Your task to perform on an android device: turn off smart reply in the gmail app Image 0: 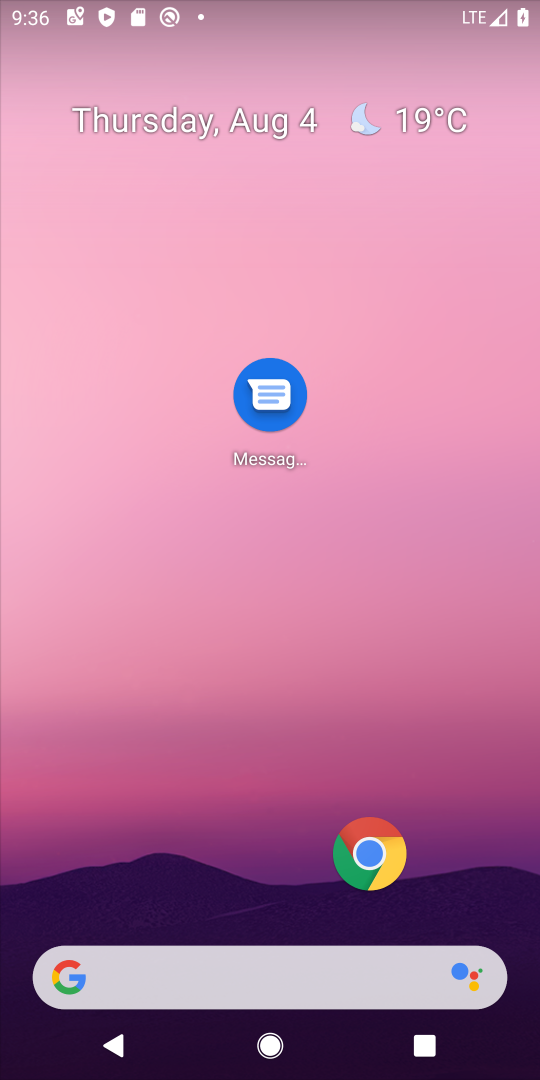
Step 0: drag from (261, 943) to (206, 351)
Your task to perform on an android device: turn off smart reply in the gmail app Image 1: 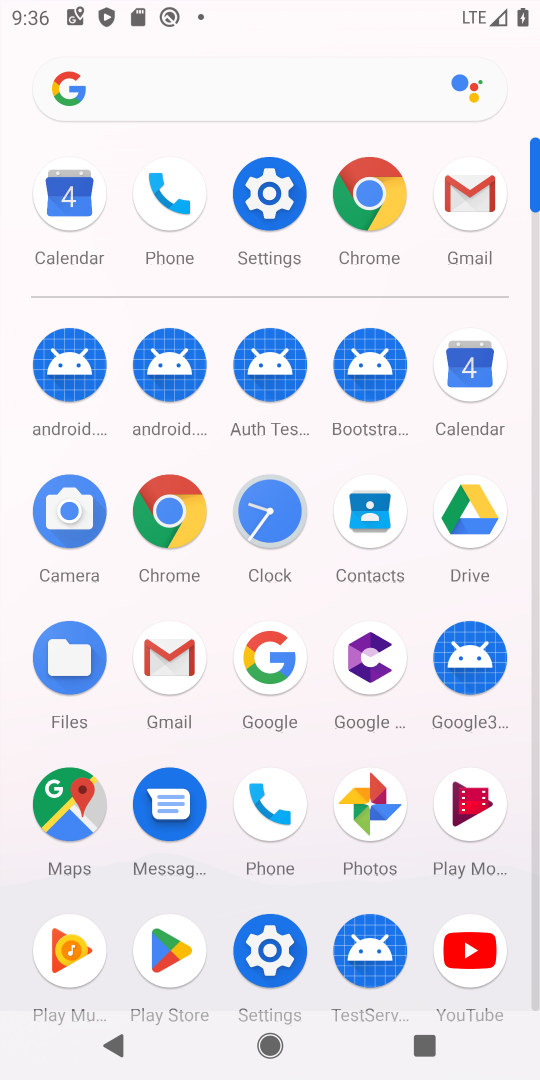
Step 1: click (165, 671)
Your task to perform on an android device: turn off smart reply in the gmail app Image 2: 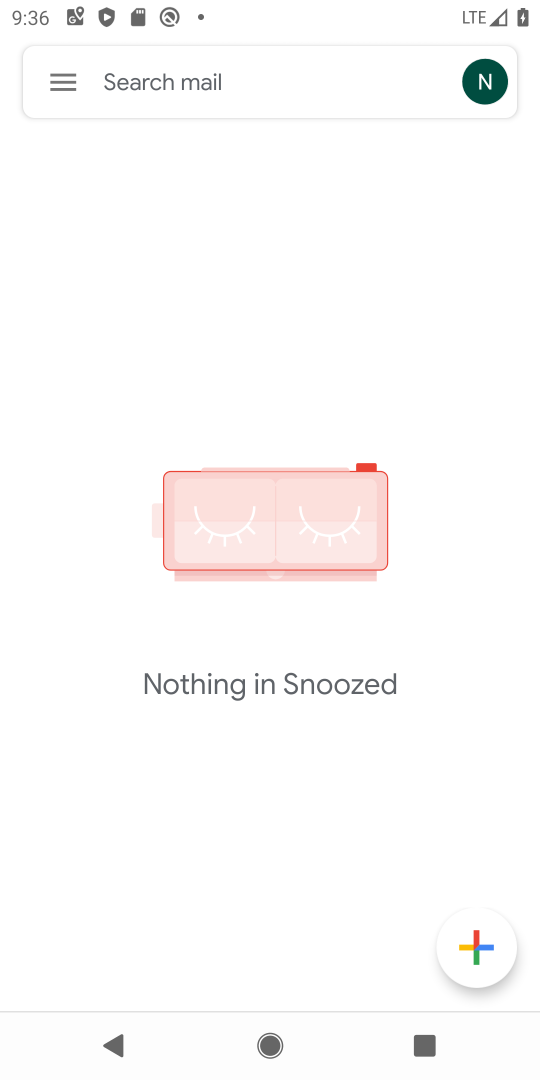
Step 2: click (63, 78)
Your task to perform on an android device: turn off smart reply in the gmail app Image 3: 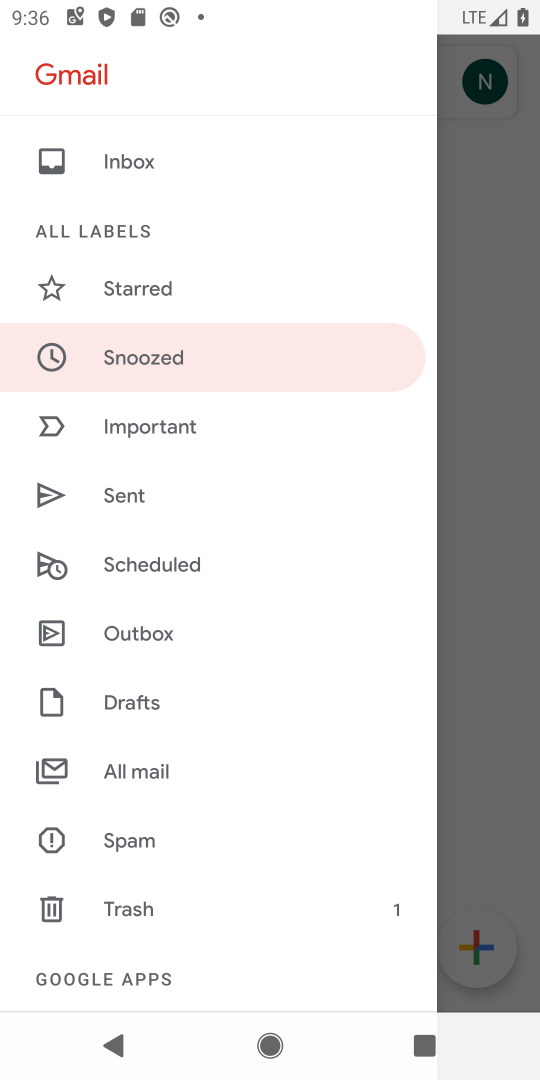
Step 3: drag from (138, 912) to (150, 456)
Your task to perform on an android device: turn off smart reply in the gmail app Image 4: 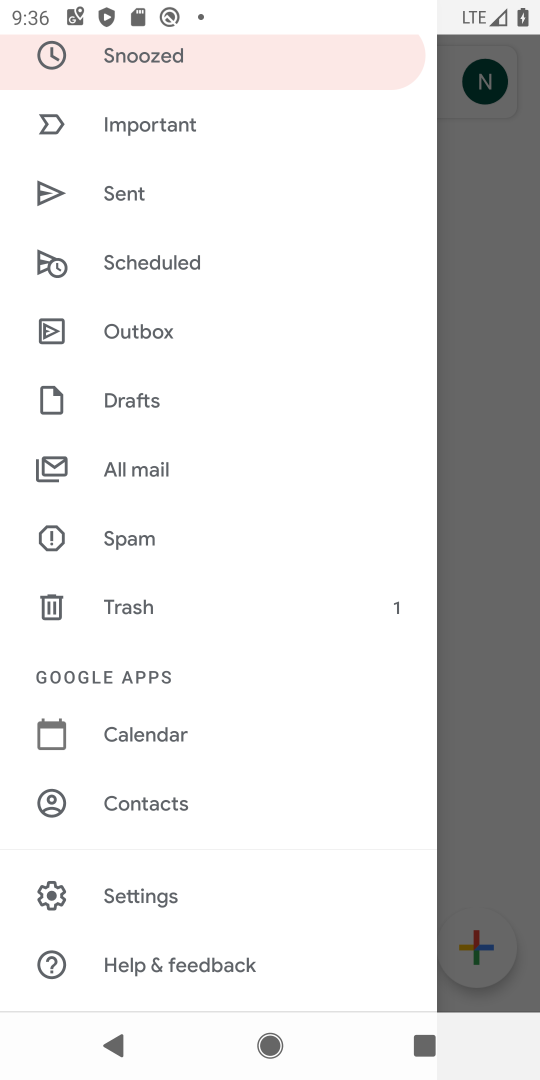
Step 4: click (164, 891)
Your task to perform on an android device: turn off smart reply in the gmail app Image 5: 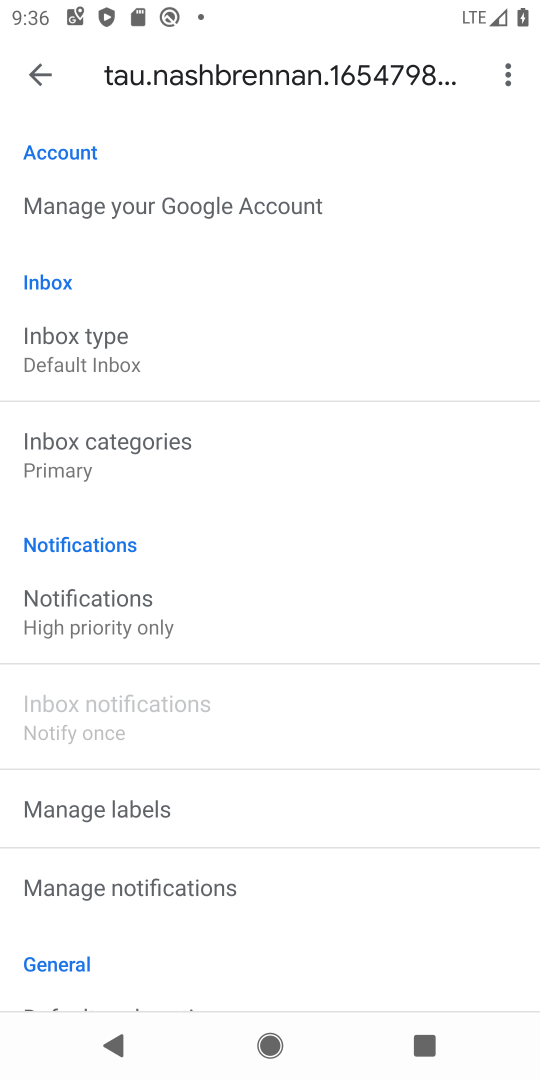
Step 5: drag from (135, 936) to (137, 346)
Your task to perform on an android device: turn off smart reply in the gmail app Image 6: 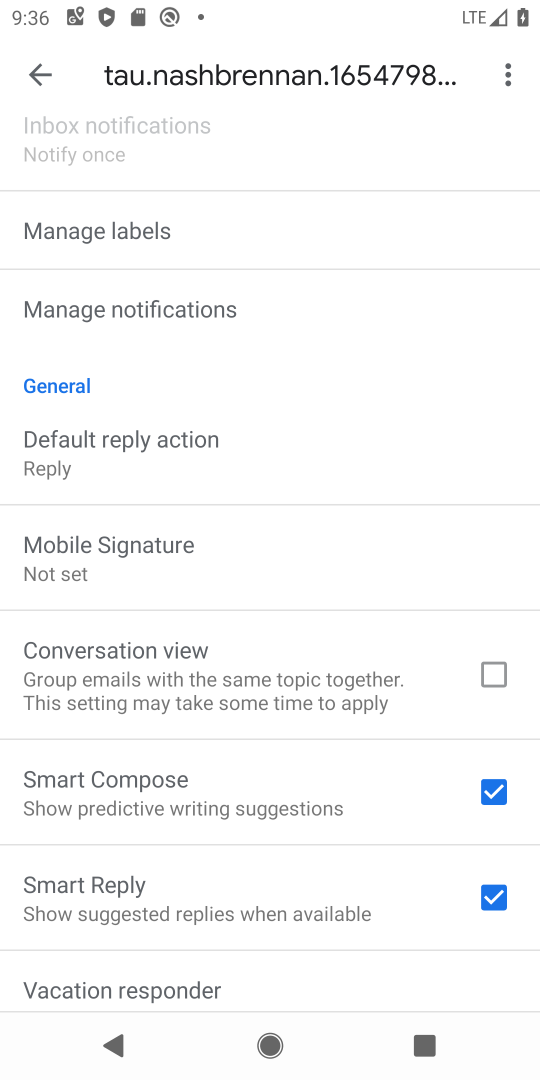
Step 6: click (507, 885)
Your task to perform on an android device: turn off smart reply in the gmail app Image 7: 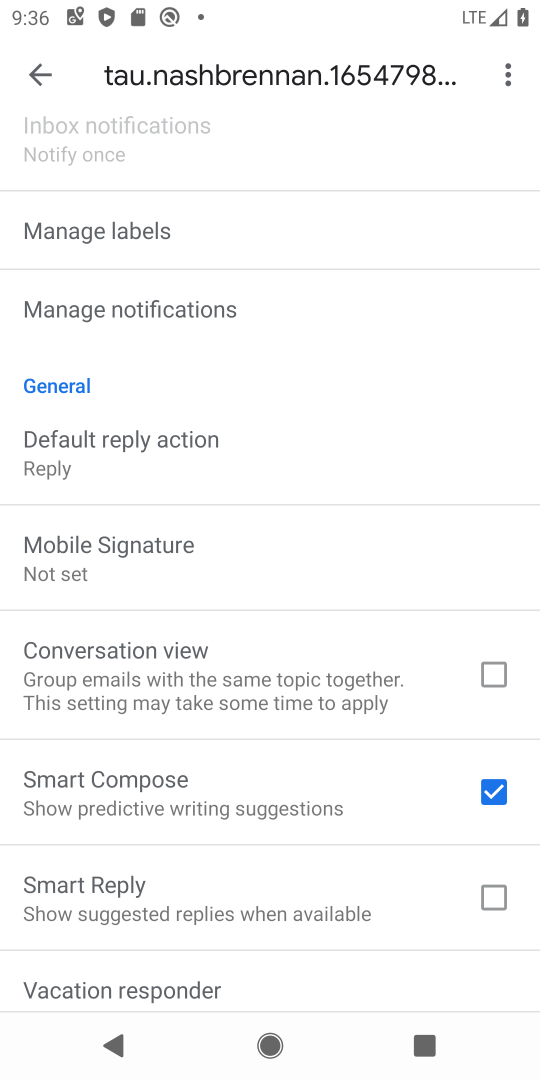
Step 7: task complete